Your task to perform on an android device: Go to Maps Image 0: 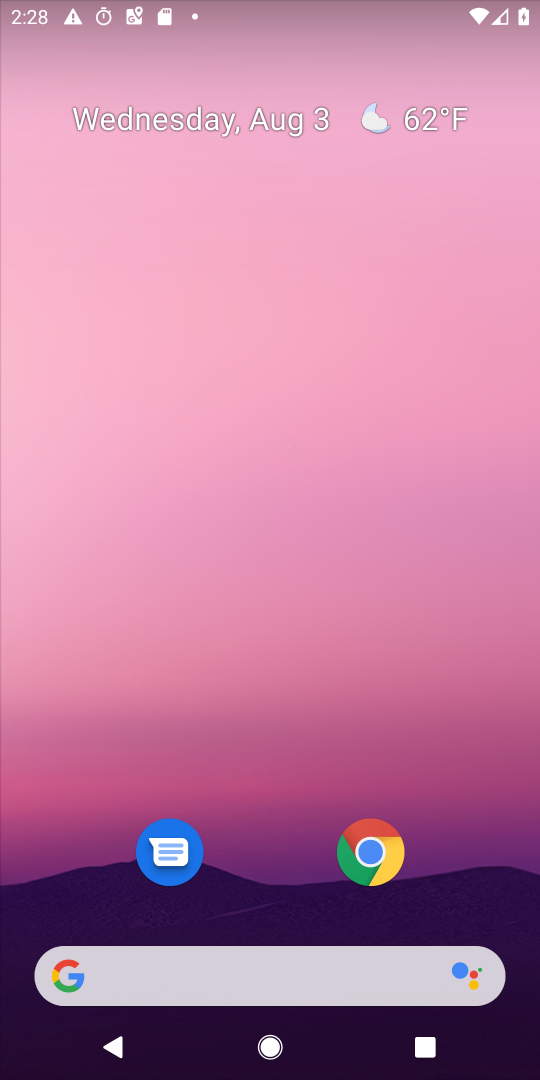
Step 0: drag from (520, 921) to (227, 62)
Your task to perform on an android device: Go to Maps Image 1: 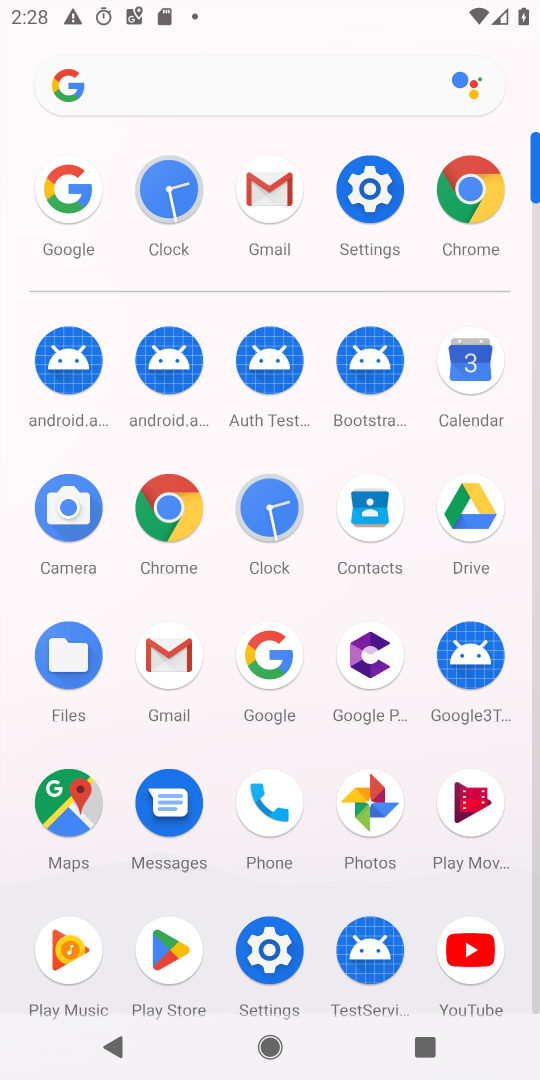
Step 1: click (68, 781)
Your task to perform on an android device: Go to Maps Image 2: 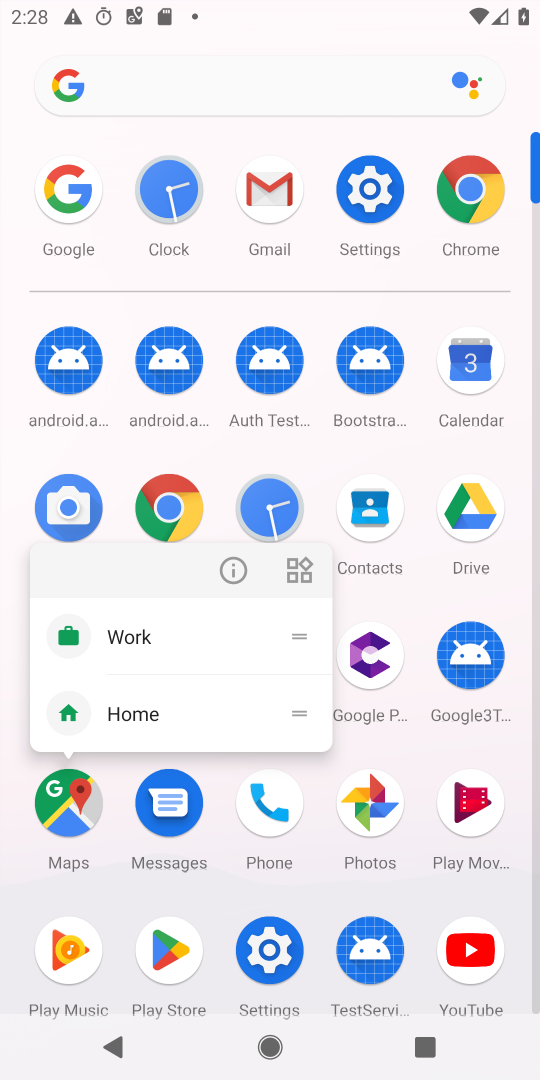
Step 2: click (68, 781)
Your task to perform on an android device: Go to Maps Image 3: 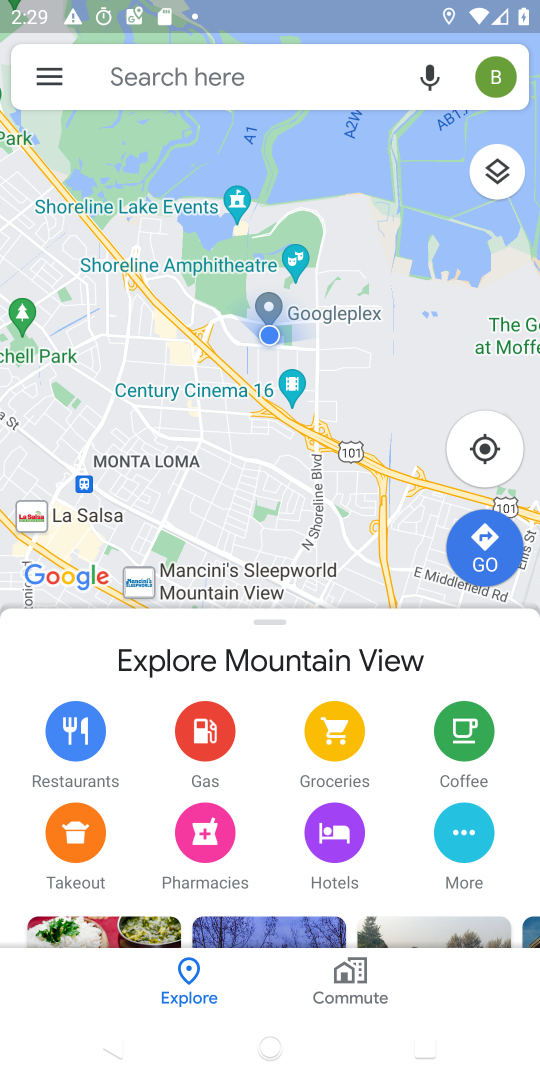
Step 3: task complete